Your task to perform on an android device: Open Android settings Image 0: 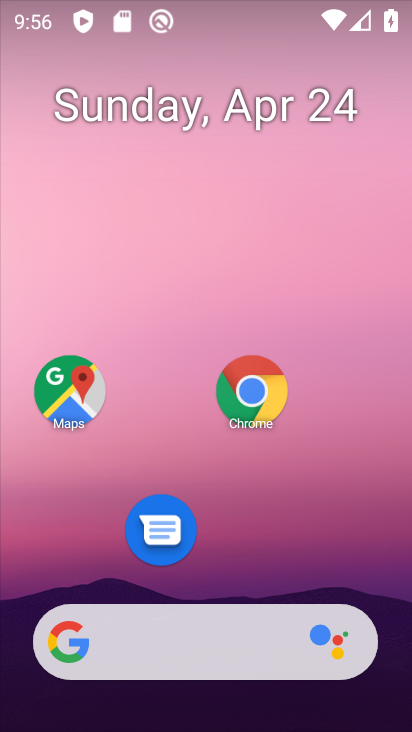
Step 0: drag from (247, 559) to (234, 51)
Your task to perform on an android device: Open Android settings Image 1: 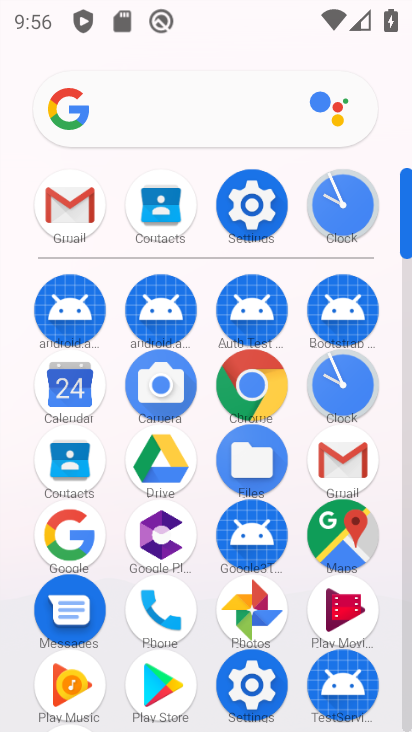
Step 1: click (242, 200)
Your task to perform on an android device: Open Android settings Image 2: 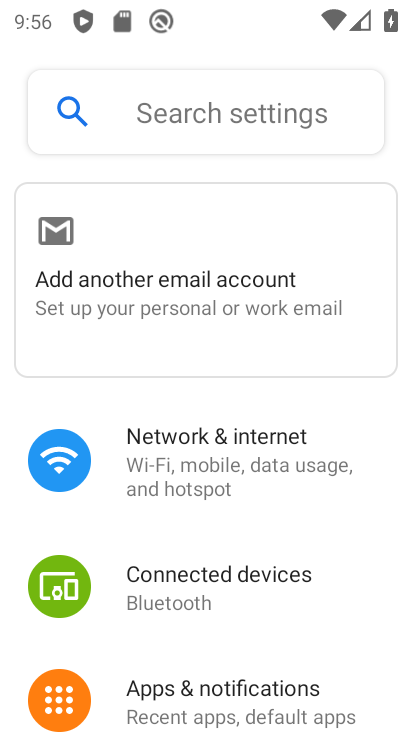
Step 2: drag from (87, 664) to (159, 139)
Your task to perform on an android device: Open Android settings Image 3: 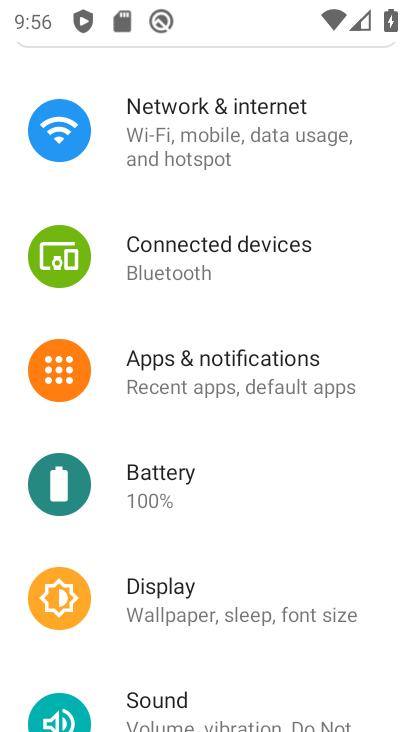
Step 3: drag from (116, 598) to (162, 137)
Your task to perform on an android device: Open Android settings Image 4: 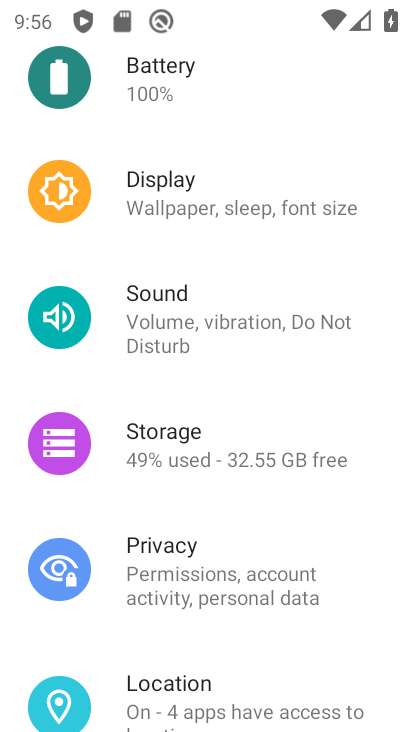
Step 4: drag from (133, 646) to (181, 179)
Your task to perform on an android device: Open Android settings Image 5: 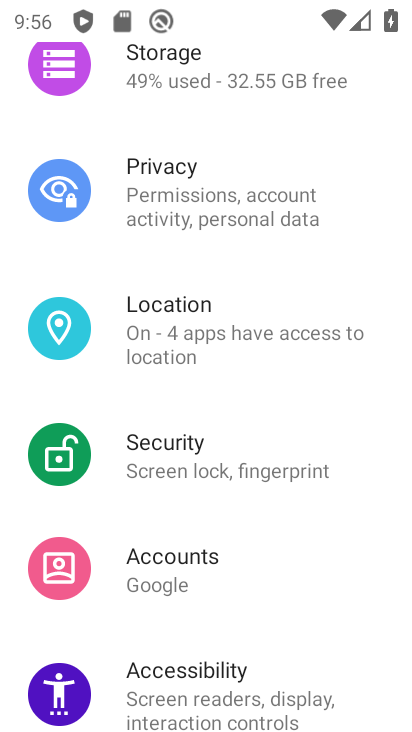
Step 5: drag from (105, 600) to (191, 117)
Your task to perform on an android device: Open Android settings Image 6: 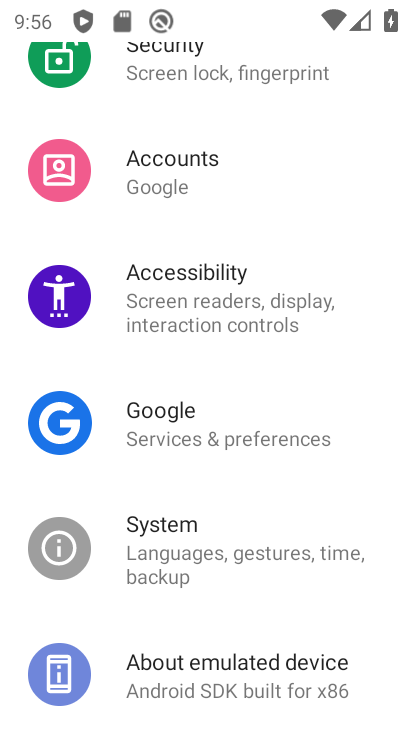
Step 6: drag from (150, 601) to (152, 255)
Your task to perform on an android device: Open Android settings Image 7: 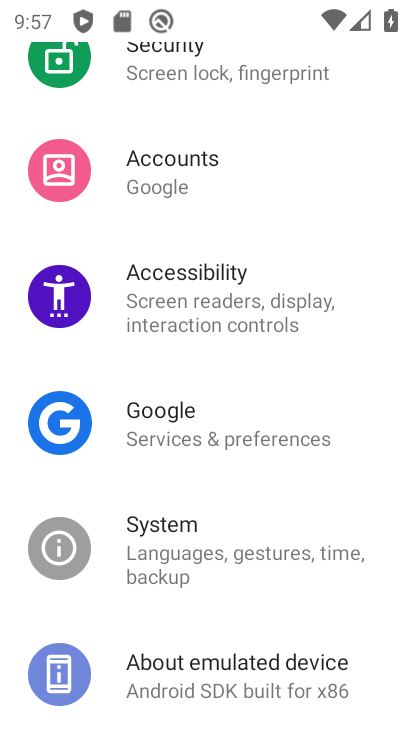
Step 7: drag from (174, 636) to (243, 70)
Your task to perform on an android device: Open Android settings Image 8: 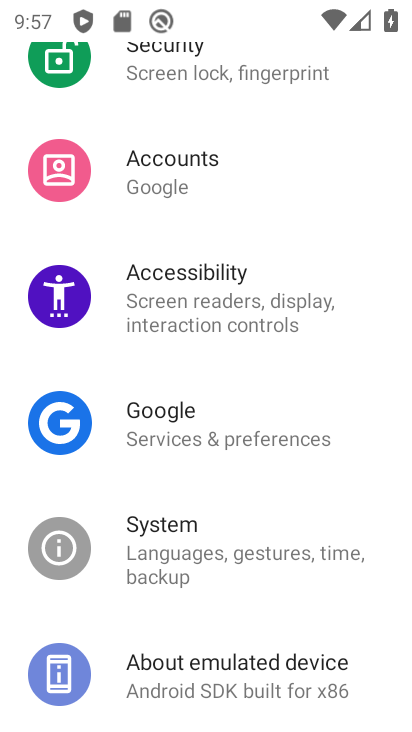
Step 8: click (233, 664)
Your task to perform on an android device: Open Android settings Image 9: 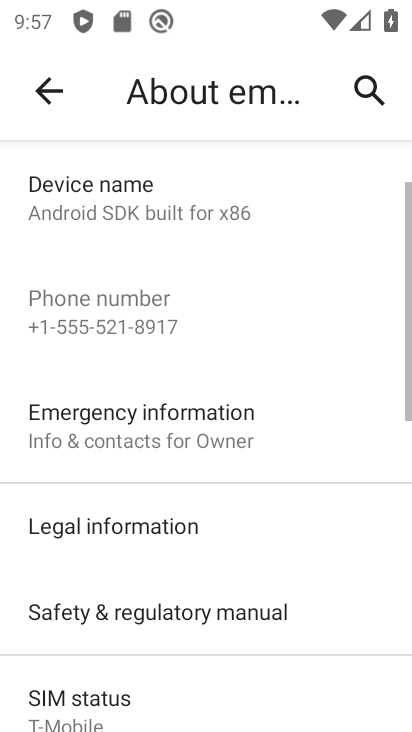
Step 9: drag from (233, 664) to (205, 335)
Your task to perform on an android device: Open Android settings Image 10: 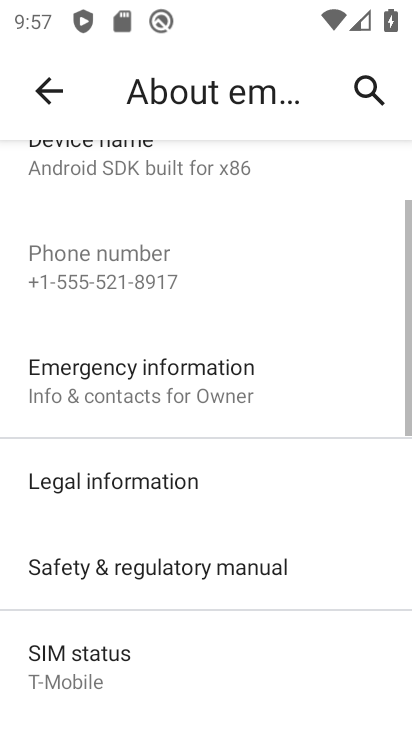
Step 10: drag from (103, 693) to (156, 164)
Your task to perform on an android device: Open Android settings Image 11: 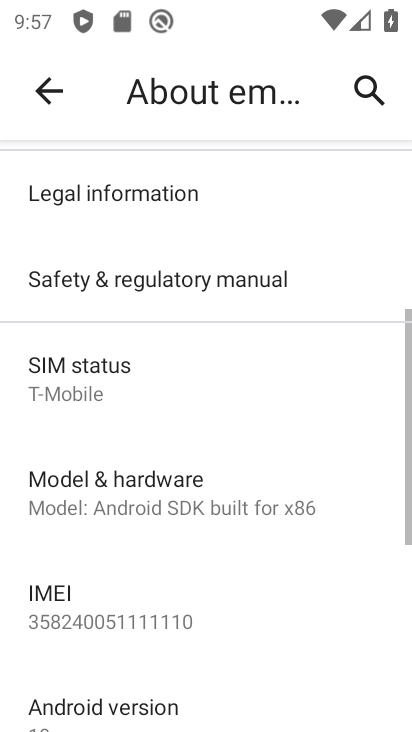
Step 11: drag from (93, 675) to (149, 337)
Your task to perform on an android device: Open Android settings Image 12: 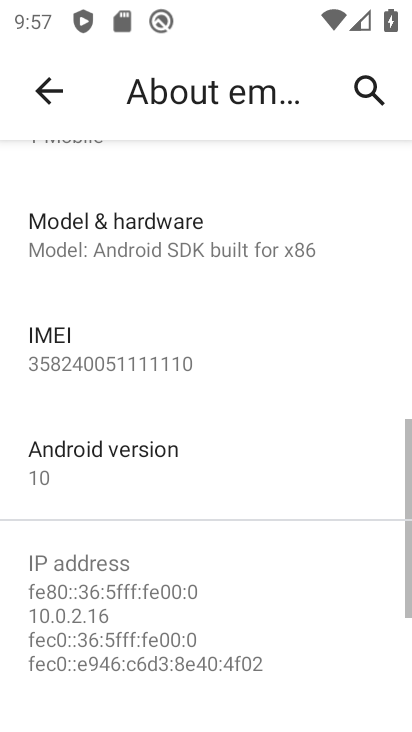
Step 12: click (166, 479)
Your task to perform on an android device: Open Android settings Image 13: 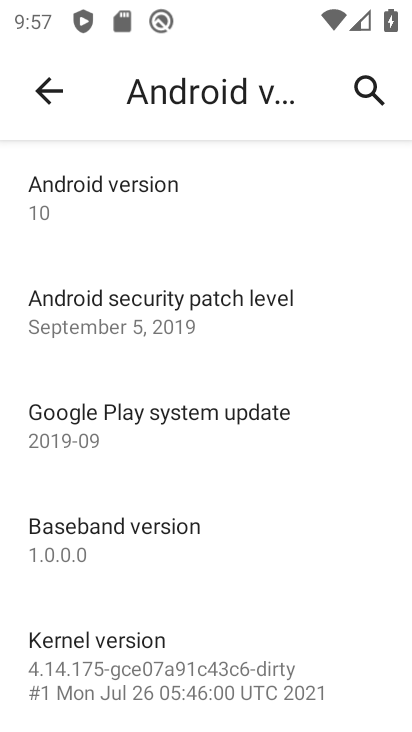
Step 13: task complete